Your task to perform on an android device: turn off smart reply in the gmail app Image 0: 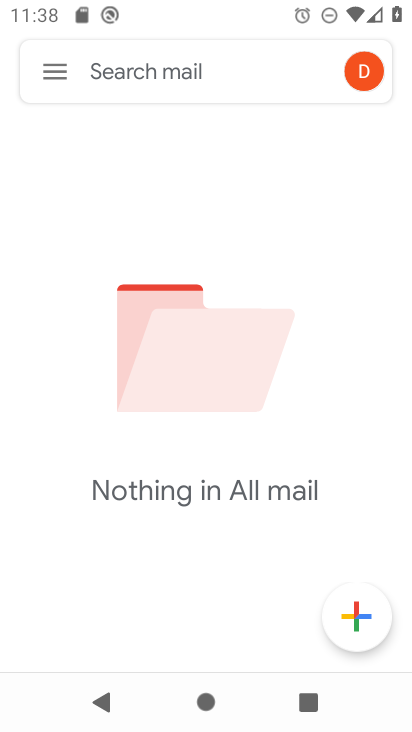
Step 0: click (39, 66)
Your task to perform on an android device: turn off smart reply in the gmail app Image 1: 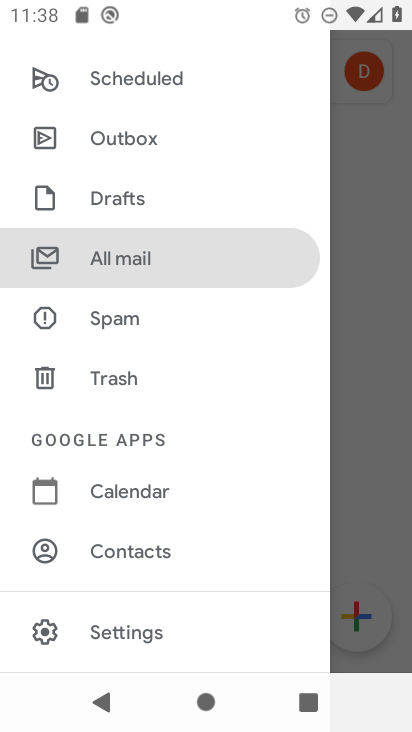
Step 1: click (148, 633)
Your task to perform on an android device: turn off smart reply in the gmail app Image 2: 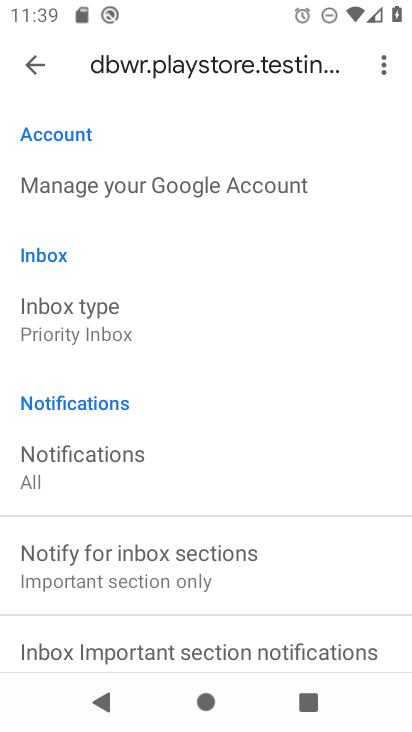
Step 2: drag from (180, 517) to (212, 95)
Your task to perform on an android device: turn off smart reply in the gmail app Image 3: 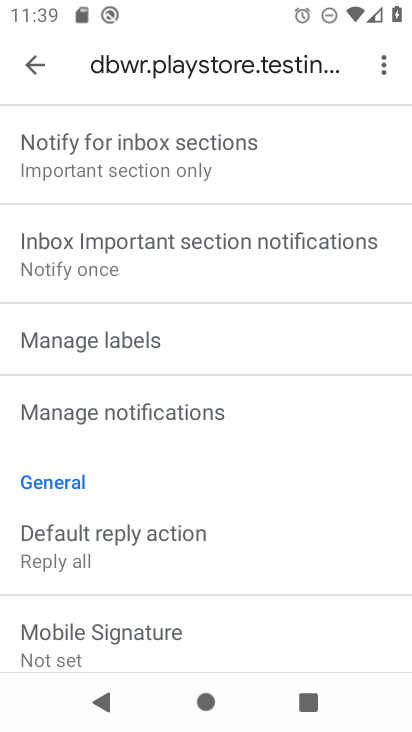
Step 3: drag from (204, 493) to (215, 106)
Your task to perform on an android device: turn off smart reply in the gmail app Image 4: 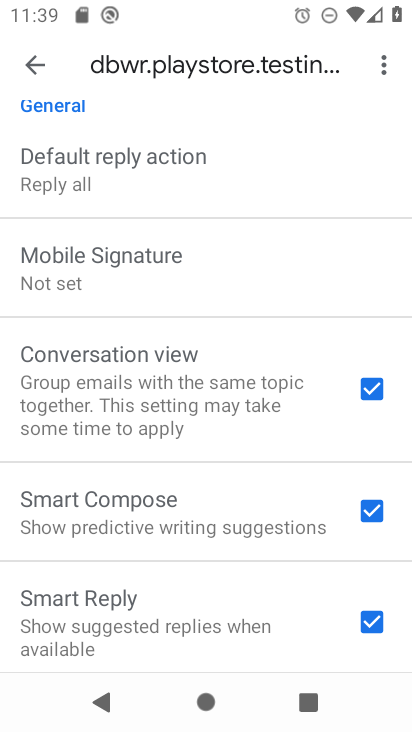
Step 4: drag from (187, 594) to (202, 288)
Your task to perform on an android device: turn off smart reply in the gmail app Image 5: 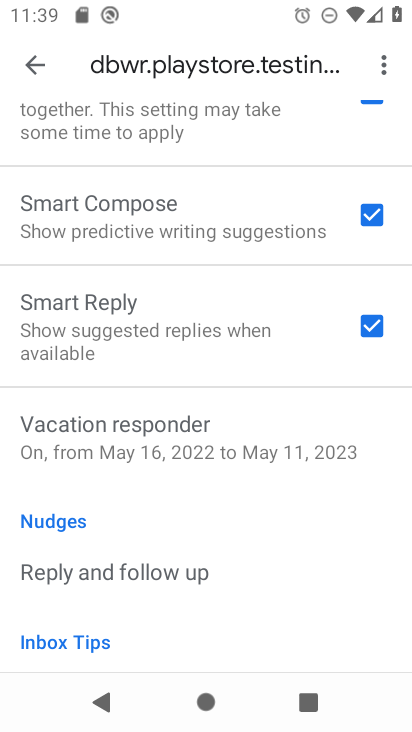
Step 5: click (370, 330)
Your task to perform on an android device: turn off smart reply in the gmail app Image 6: 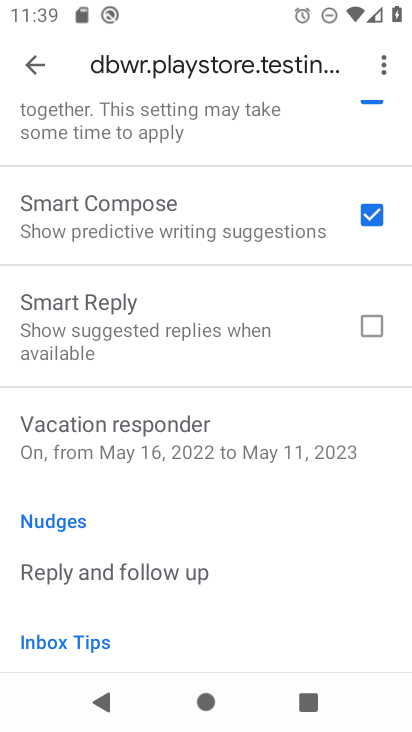
Step 6: task complete